Your task to perform on an android device: What's on my calendar today? Image 0: 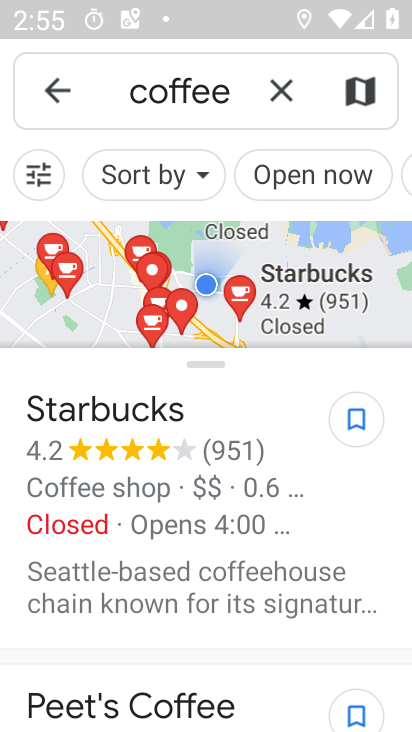
Step 0: press home button
Your task to perform on an android device: What's on my calendar today? Image 1: 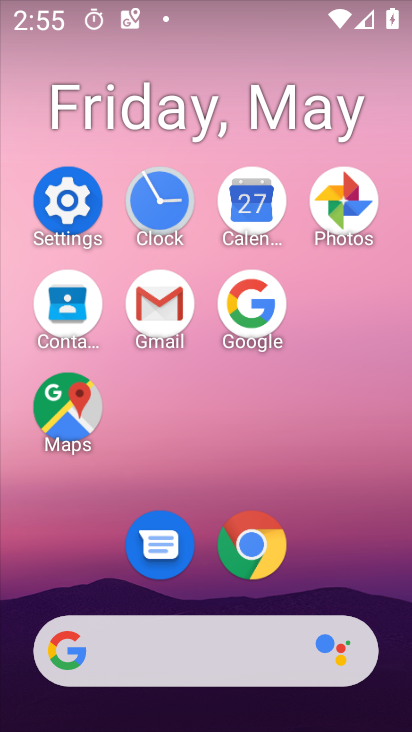
Step 1: click (228, 214)
Your task to perform on an android device: What's on my calendar today? Image 2: 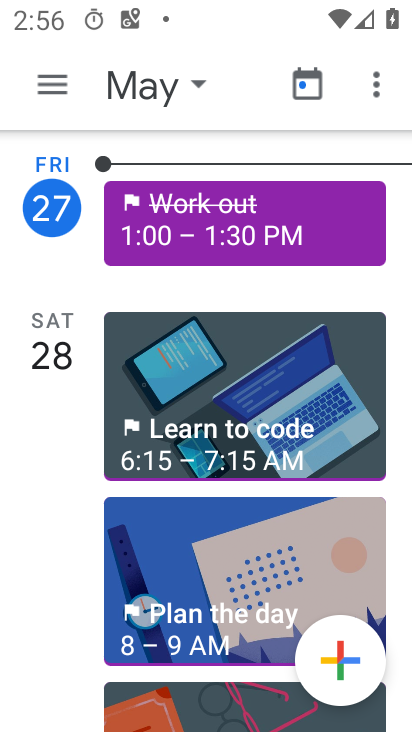
Step 2: click (46, 211)
Your task to perform on an android device: What's on my calendar today? Image 3: 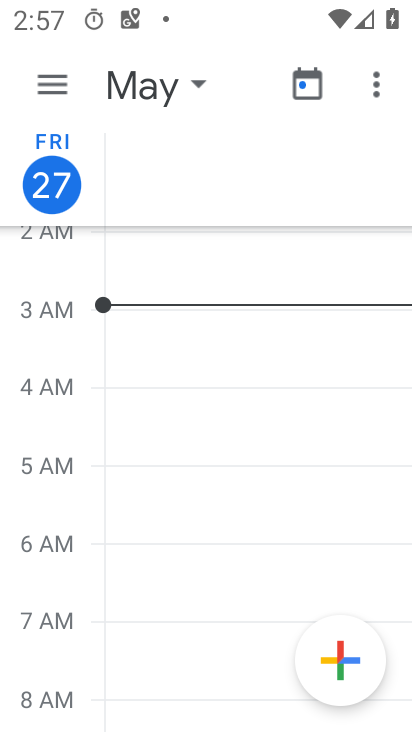
Step 3: task complete